Your task to perform on an android device: Open calendar and show me the first week of next month Image 0: 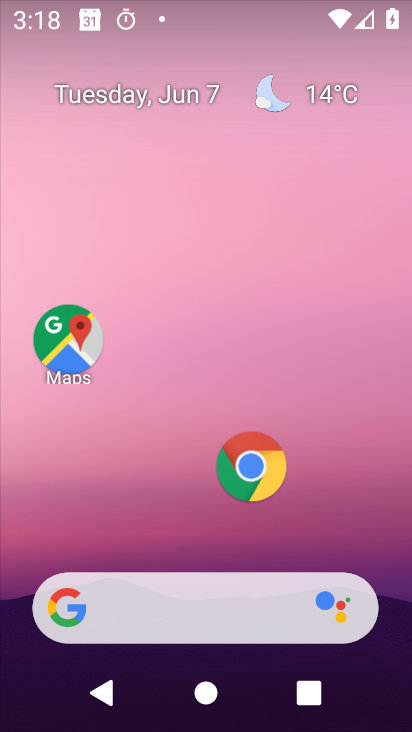
Step 0: drag from (170, 720) to (257, 9)
Your task to perform on an android device: Open calendar and show me the first week of next month Image 1: 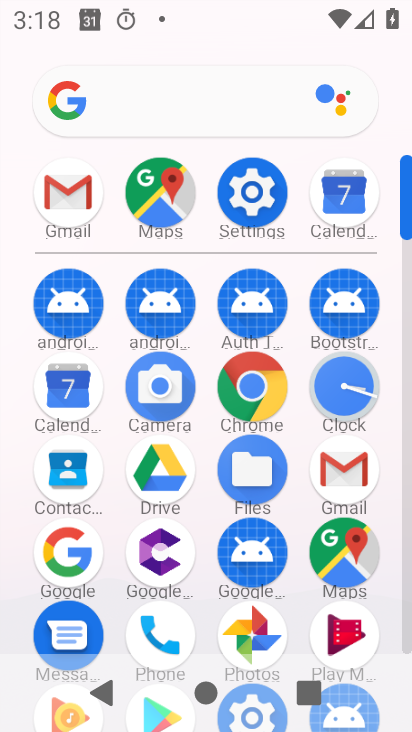
Step 1: click (344, 203)
Your task to perform on an android device: Open calendar and show me the first week of next month Image 2: 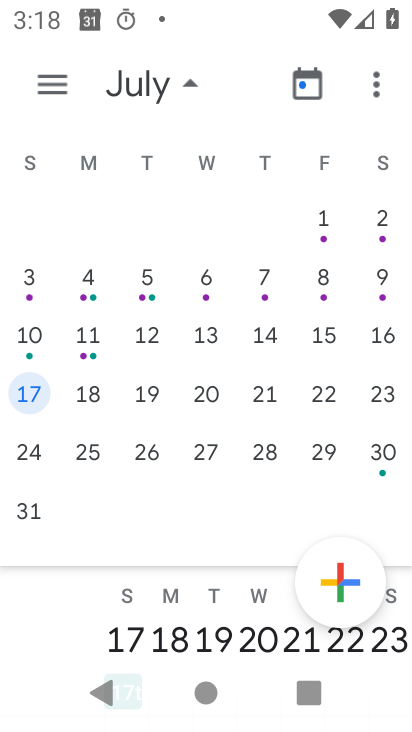
Step 2: click (180, 82)
Your task to perform on an android device: Open calendar and show me the first week of next month Image 3: 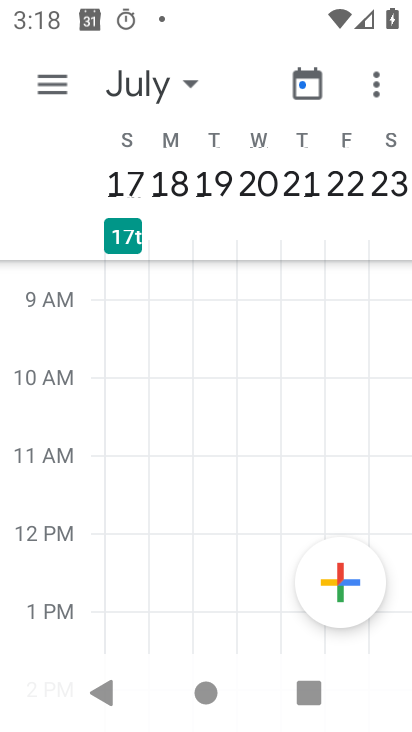
Step 3: click (173, 83)
Your task to perform on an android device: Open calendar and show me the first week of next month Image 4: 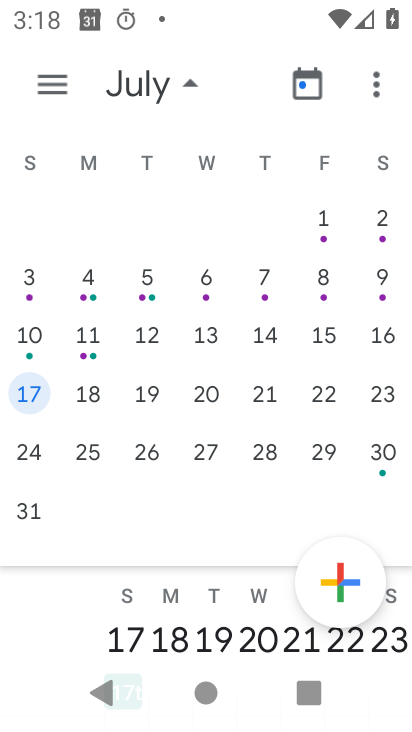
Step 4: click (255, 523)
Your task to perform on an android device: Open calendar and show me the first week of next month Image 5: 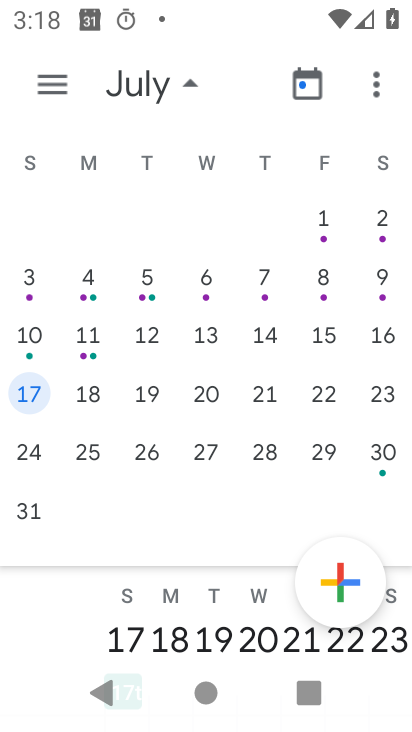
Step 5: click (171, 85)
Your task to perform on an android device: Open calendar and show me the first week of next month Image 6: 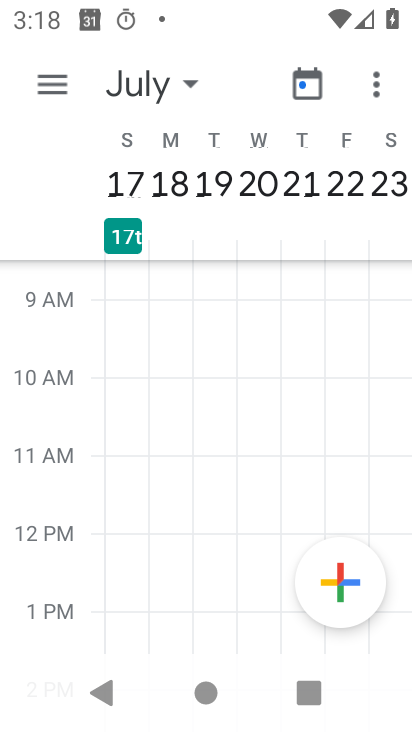
Step 6: task complete